Your task to perform on an android device: toggle notifications settings in the gmail app Image 0: 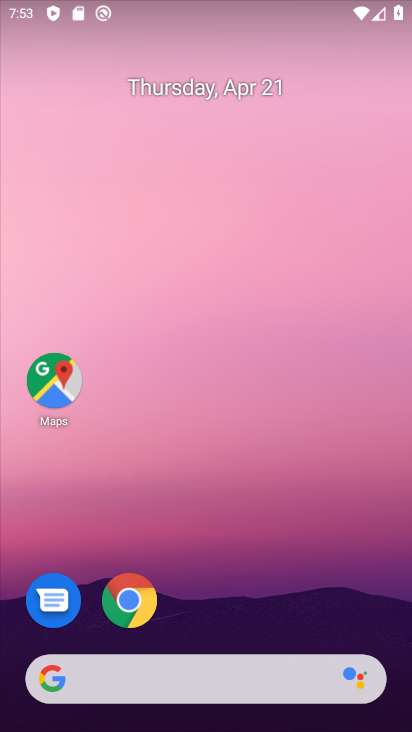
Step 0: drag from (278, 608) to (236, 253)
Your task to perform on an android device: toggle notifications settings in the gmail app Image 1: 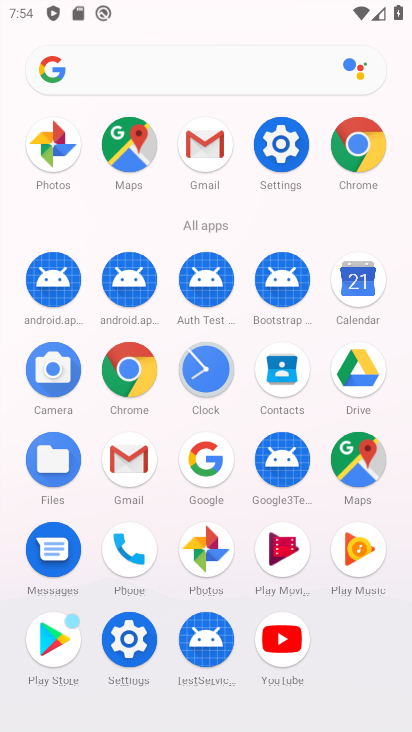
Step 1: click (159, 469)
Your task to perform on an android device: toggle notifications settings in the gmail app Image 2: 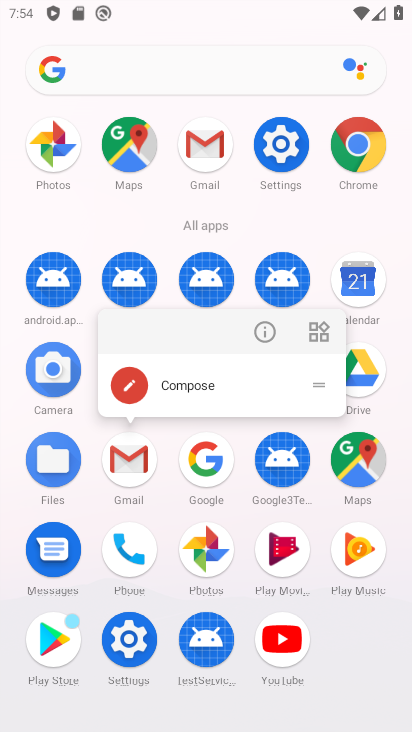
Step 2: click (142, 468)
Your task to perform on an android device: toggle notifications settings in the gmail app Image 3: 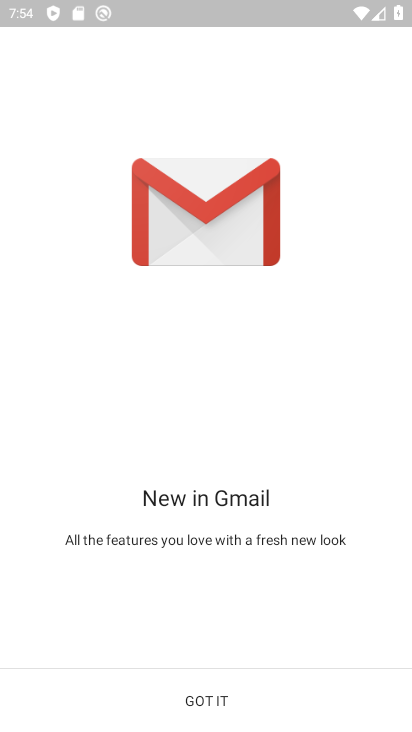
Step 3: click (207, 690)
Your task to perform on an android device: toggle notifications settings in the gmail app Image 4: 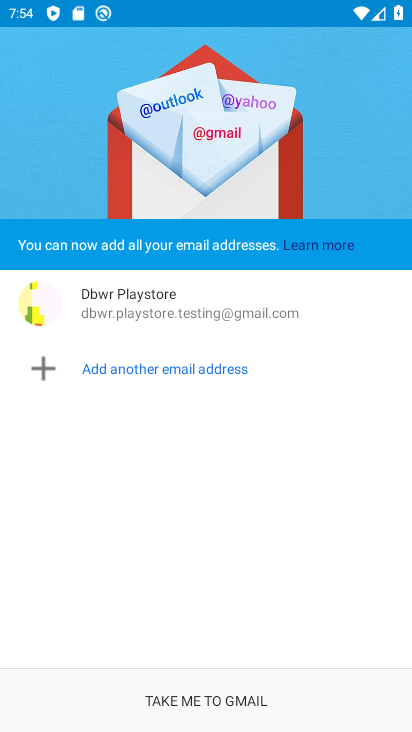
Step 4: click (207, 691)
Your task to perform on an android device: toggle notifications settings in the gmail app Image 5: 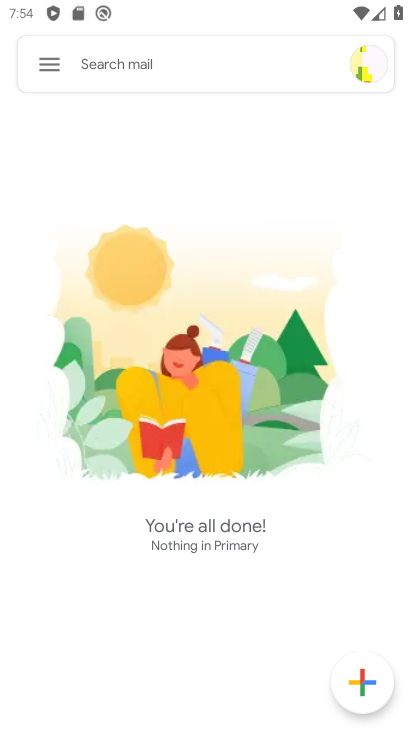
Step 5: click (48, 62)
Your task to perform on an android device: toggle notifications settings in the gmail app Image 6: 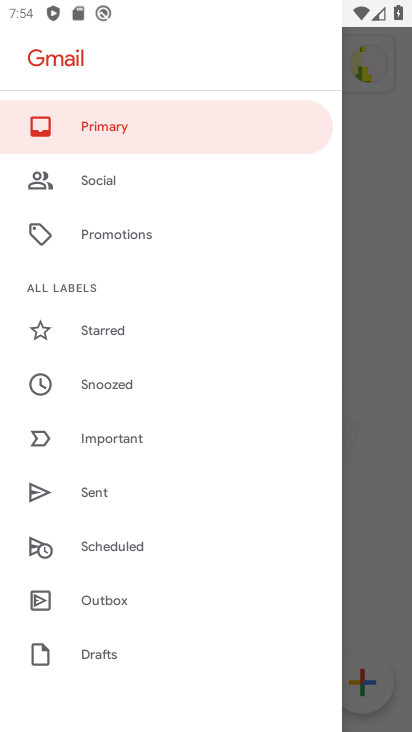
Step 6: drag from (135, 643) to (167, 228)
Your task to perform on an android device: toggle notifications settings in the gmail app Image 7: 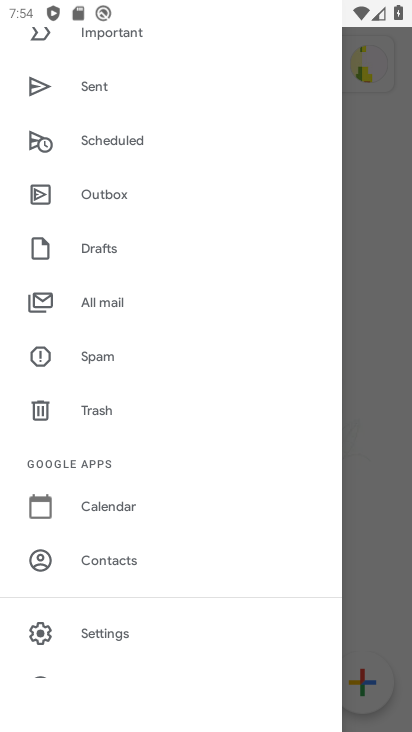
Step 7: click (113, 638)
Your task to perform on an android device: toggle notifications settings in the gmail app Image 8: 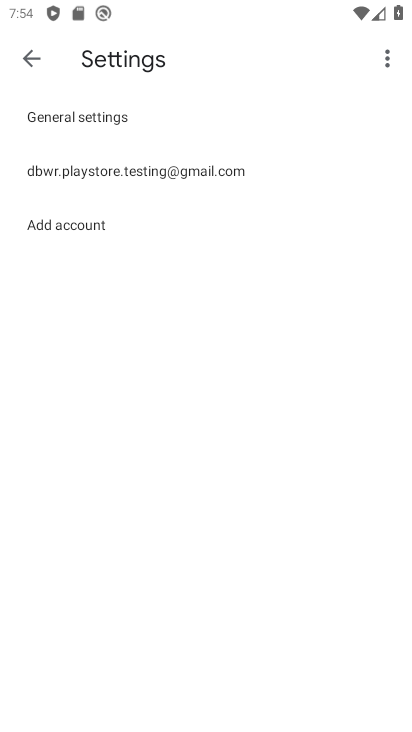
Step 8: click (157, 179)
Your task to perform on an android device: toggle notifications settings in the gmail app Image 9: 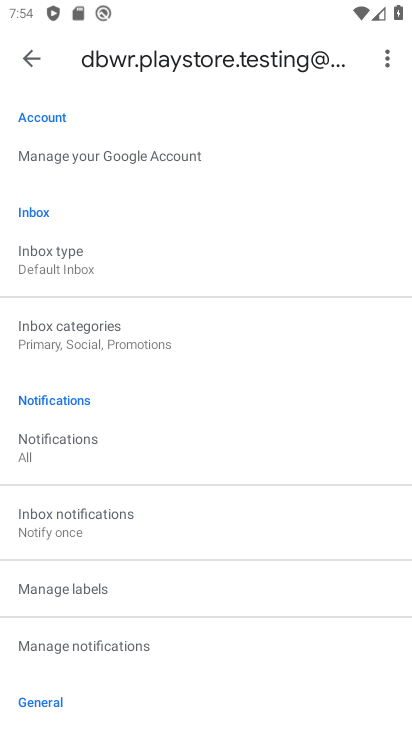
Step 9: click (46, 461)
Your task to perform on an android device: toggle notifications settings in the gmail app Image 10: 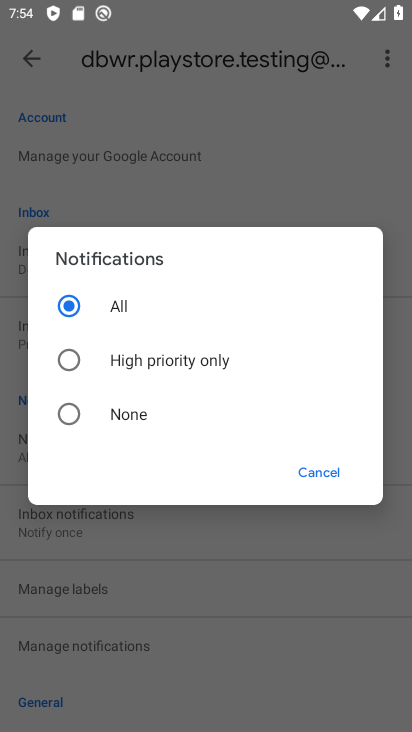
Step 10: click (69, 416)
Your task to perform on an android device: toggle notifications settings in the gmail app Image 11: 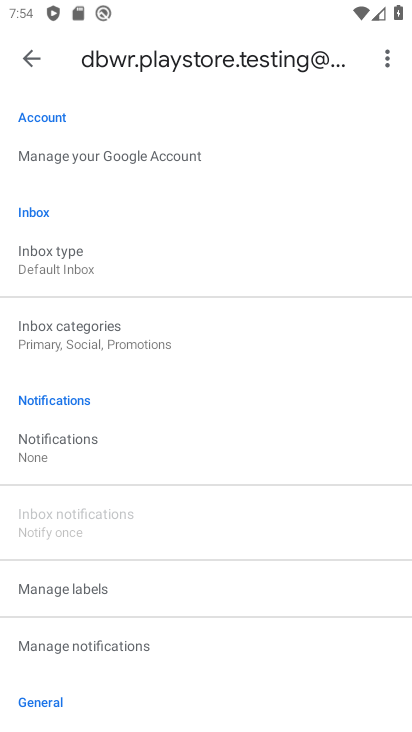
Step 11: task complete